Your task to perform on an android device: Open calendar and show me the third week of next month Image 0: 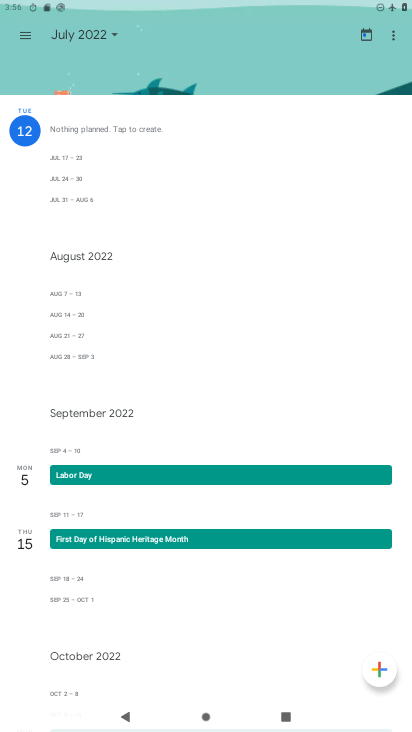
Step 0: click (99, 27)
Your task to perform on an android device: Open calendar and show me the third week of next month Image 1: 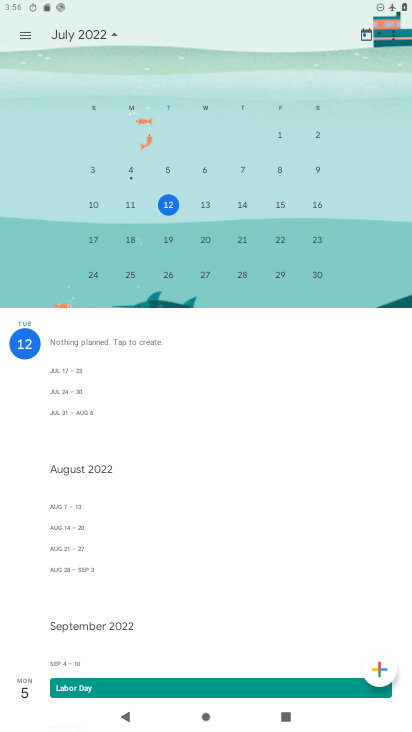
Step 1: drag from (310, 171) to (1, 137)
Your task to perform on an android device: Open calendar and show me the third week of next month Image 2: 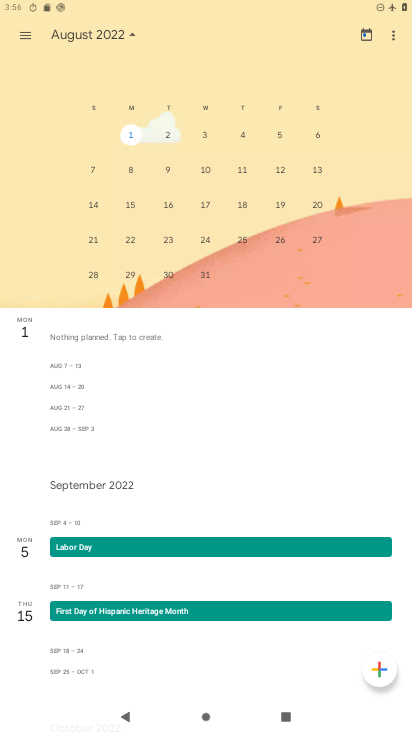
Step 2: click (276, 202)
Your task to perform on an android device: Open calendar and show me the third week of next month Image 3: 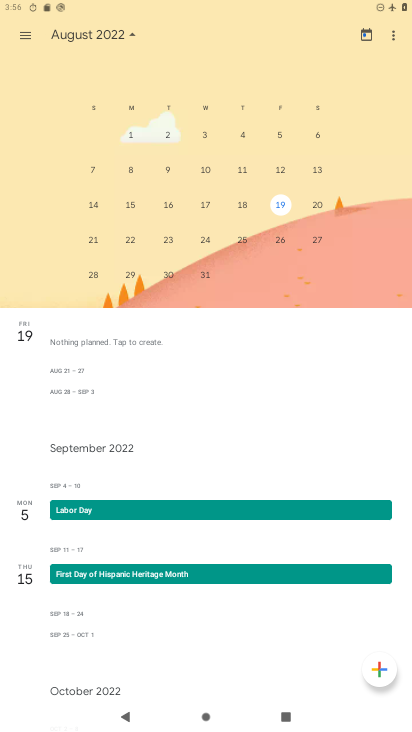
Step 3: task complete